Your task to perform on an android device: find snoozed emails in the gmail app Image 0: 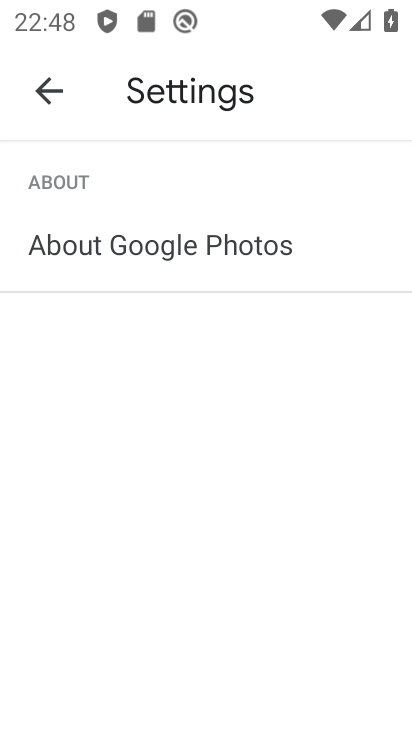
Step 0: press home button
Your task to perform on an android device: find snoozed emails in the gmail app Image 1: 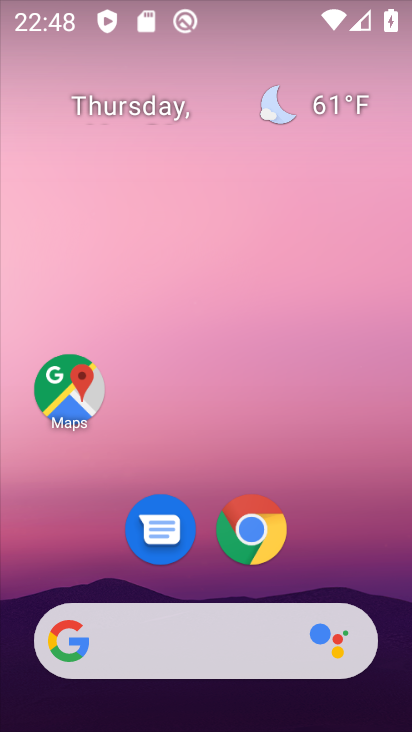
Step 1: drag from (350, 568) to (309, 215)
Your task to perform on an android device: find snoozed emails in the gmail app Image 2: 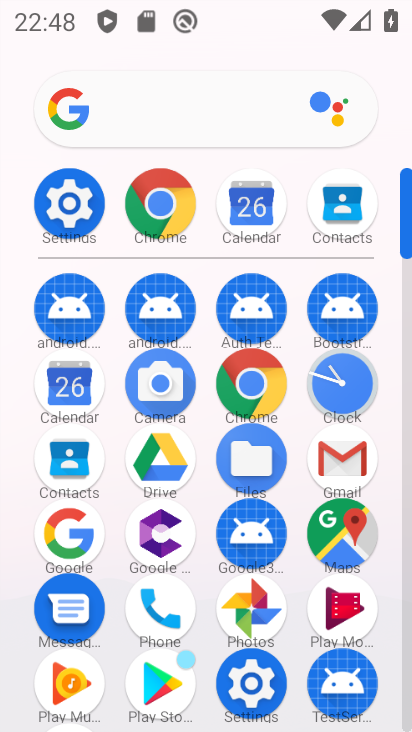
Step 2: click (335, 461)
Your task to perform on an android device: find snoozed emails in the gmail app Image 3: 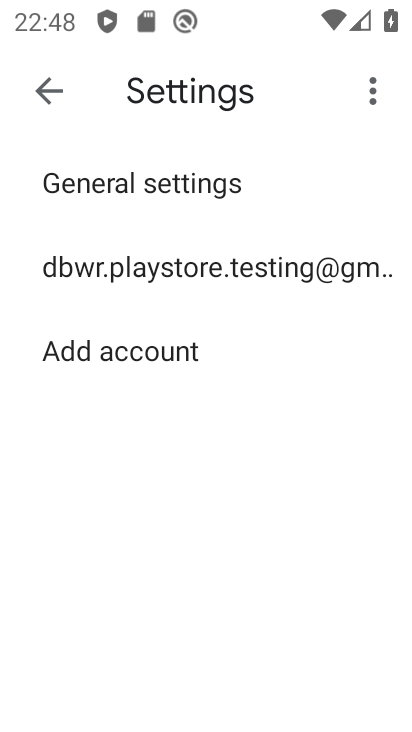
Step 3: click (38, 105)
Your task to perform on an android device: find snoozed emails in the gmail app Image 4: 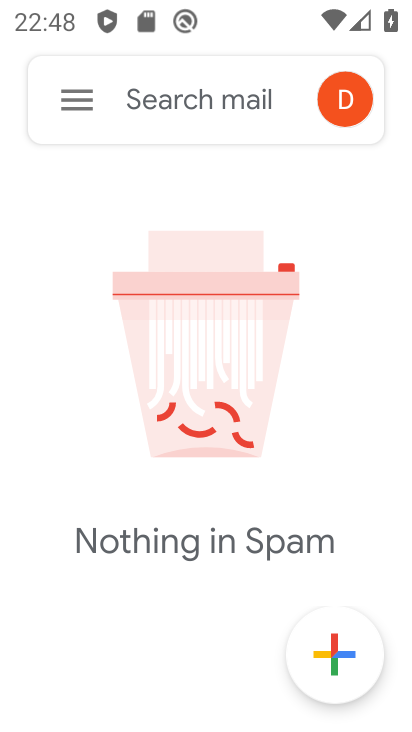
Step 4: click (38, 105)
Your task to perform on an android device: find snoozed emails in the gmail app Image 5: 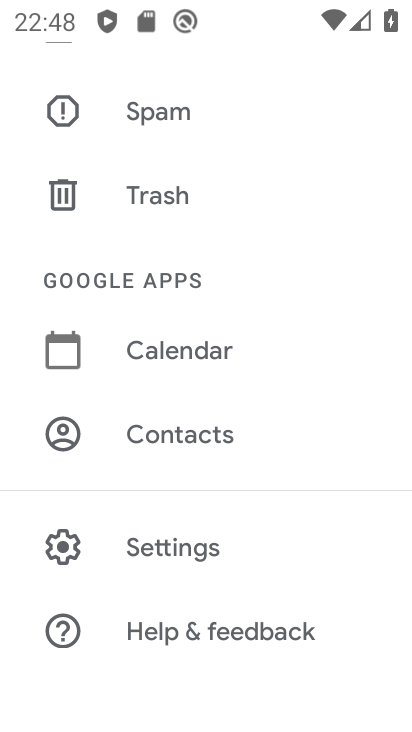
Step 5: drag from (265, 309) to (322, 718)
Your task to perform on an android device: find snoozed emails in the gmail app Image 6: 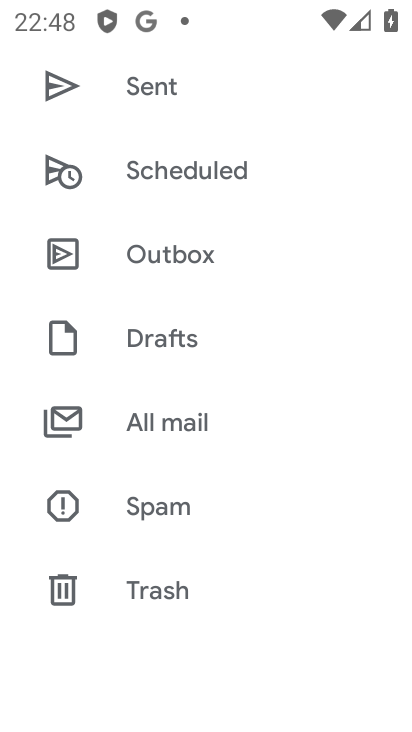
Step 6: drag from (237, 230) to (267, 660)
Your task to perform on an android device: find snoozed emails in the gmail app Image 7: 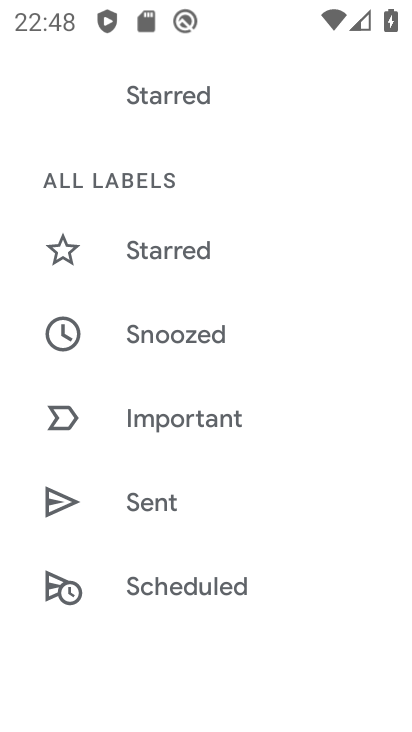
Step 7: click (194, 343)
Your task to perform on an android device: find snoozed emails in the gmail app Image 8: 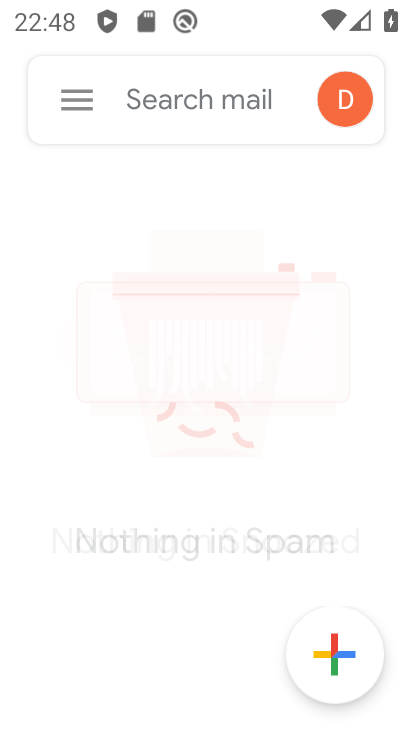
Step 8: task complete